Your task to perform on an android device: open a new tab in the chrome app Image 0: 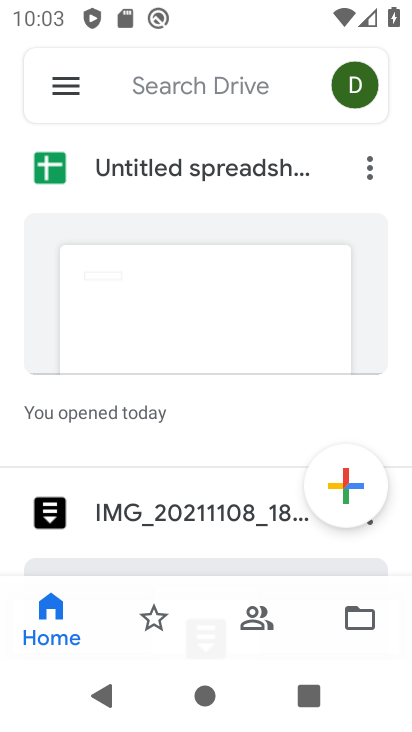
Step 0: press home button
Your task to perform on an android device: open a new tab in the chrome app Image 1: 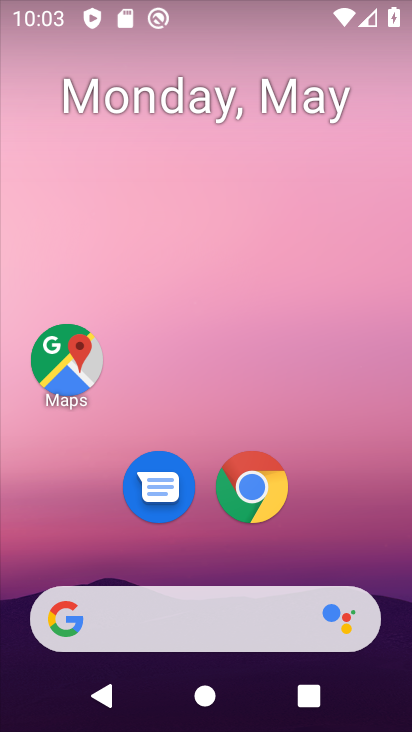
Step 1: drag from (367, 327) to (349, 83)
Your task to perform on an android device: open a new tab in the chrome app Image 2: 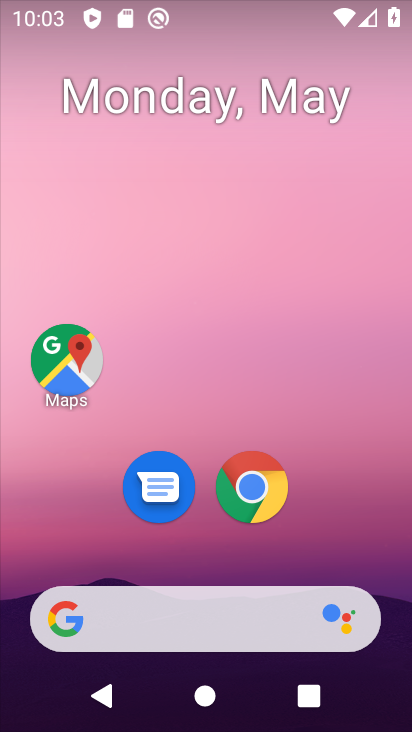
Step 2: drag from (396, 567) to (374, 100)
Your task to perform on an android device: open a new tab in the chrome app Image 3: 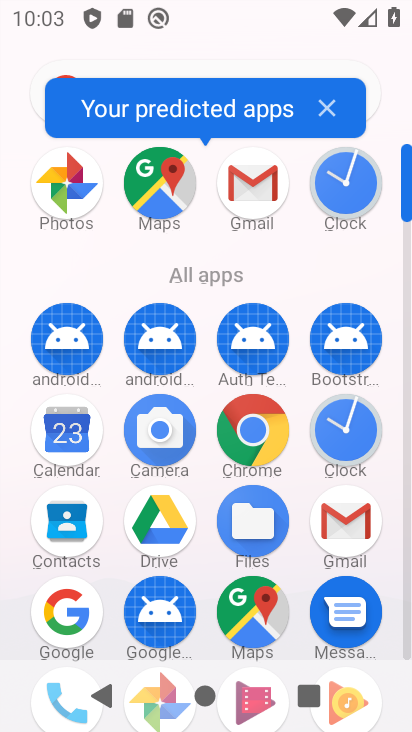
Step 3: click (260, 443)
Your task to perform on an android device: open a new tab in the chrome app Image 4: 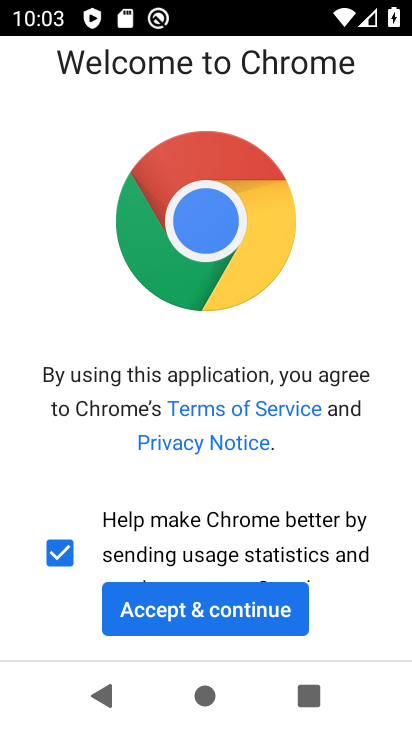
Step 4: click (233, 617)
Your task to perform on an android device: open a new tab in the chrome app Image 5: 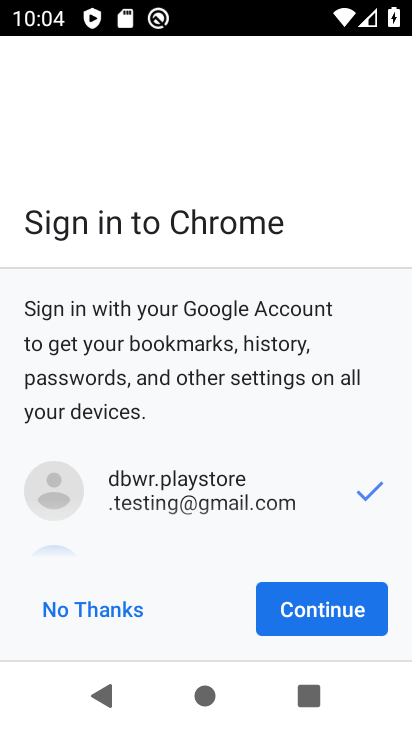
Step 5: click (296, 614)
Your task to perform on an android device: open a new tab in the chrome app Image 6: 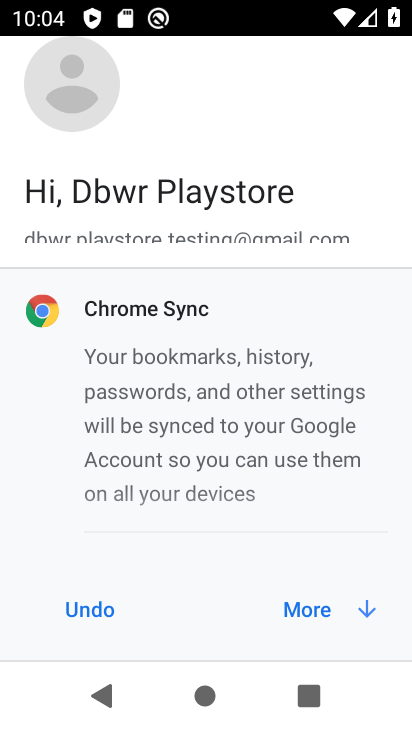
Step 6: click (311, 612)
Your task to perform on an android device: open a new tab in the chrome app Image 7: 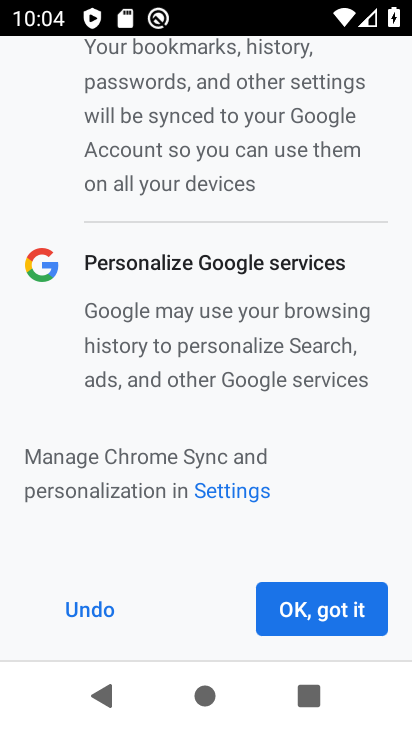
Step 7: click (311, 612)
Your task to perform on an android device: open a new tab in the chrome app Image 8: 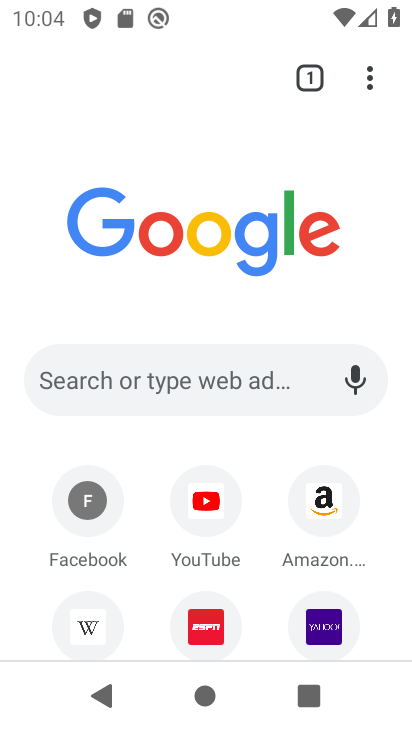
Step 8: click (370, 74)
Your task to perform on an android device: open a new tab in the chrome app Image 9: 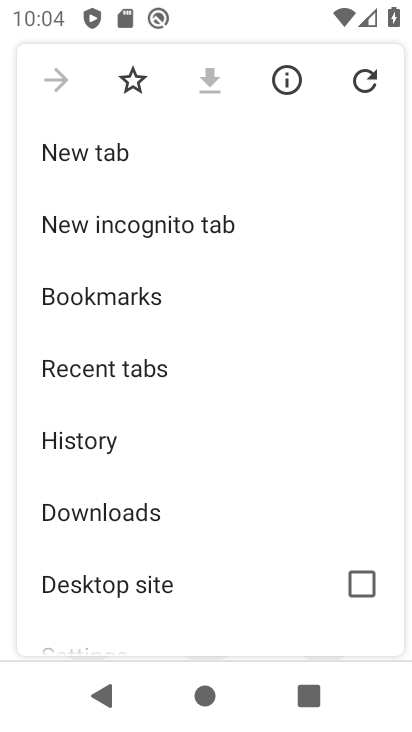
Step 9: click (115, 147)
Your task to perform on an android device: open a new tab in the chrome app Image 10: 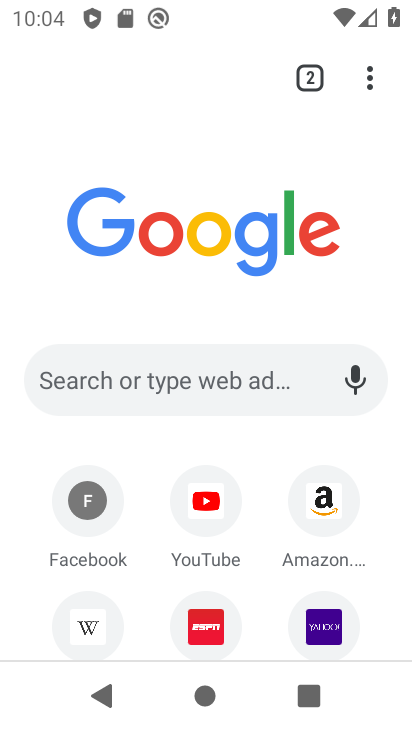
Step 10: task complete